Your task to perform on an android device: toggle airplane mode Image 0: 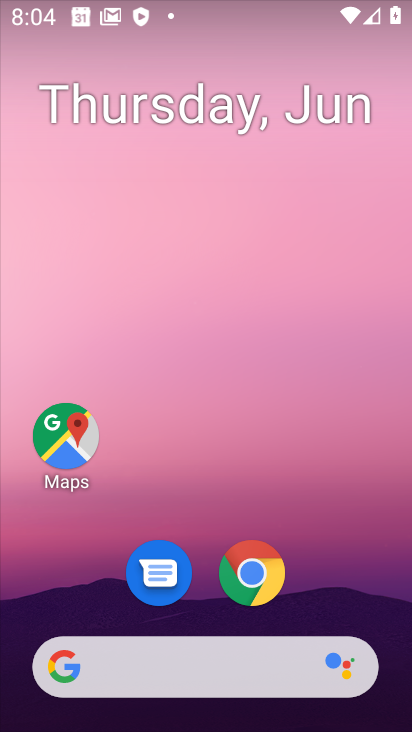
Step 0: drag from (349, 537) to (251, 271)
Your task to perform on an android device: toggle airplane mode Image 1: 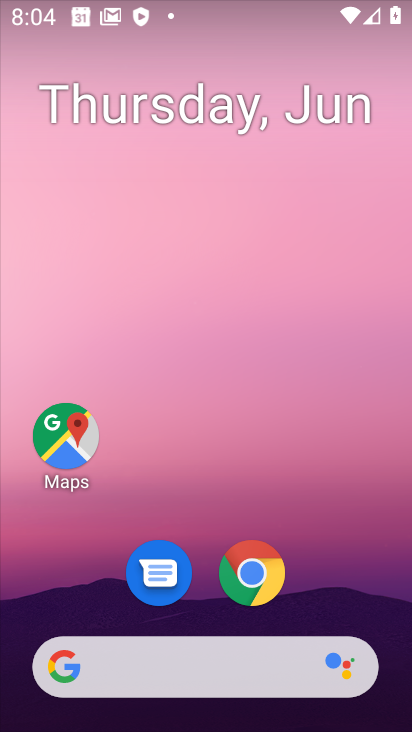
Step 1: drag from (312, 621) to (291, 265)
Your task to perform on an android device: toggle airplane mode Image 2: 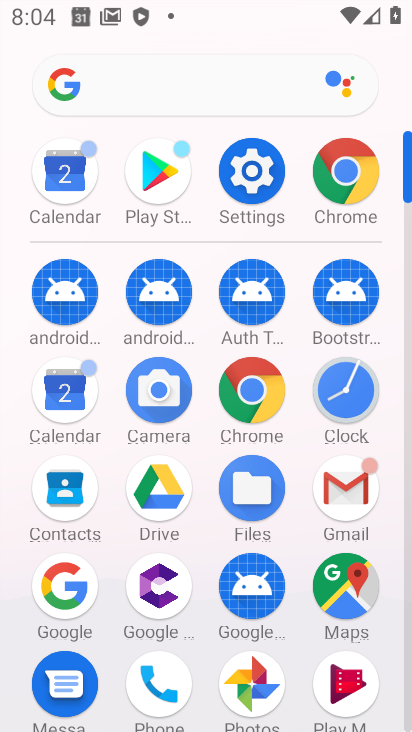
Step 2: click (238, 173)
Your task to perform on an android device: toggle airplane mode Image 3: 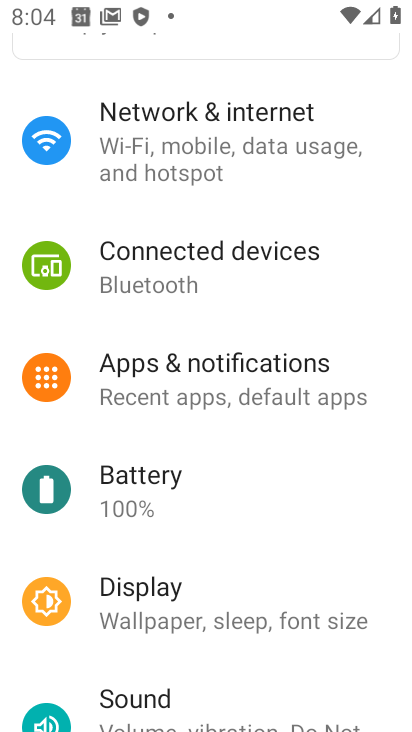
Step 3: drag from (230, 174) to (265, 558)
Your task to perform on an android device: toggle airplane mode Image 4: 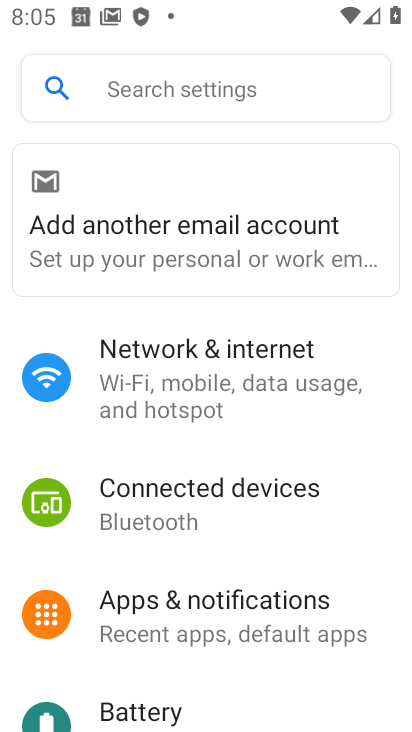
Step 4: click (253, 379)
Your task to perform on an android device: toggle airplane mode Image 5: 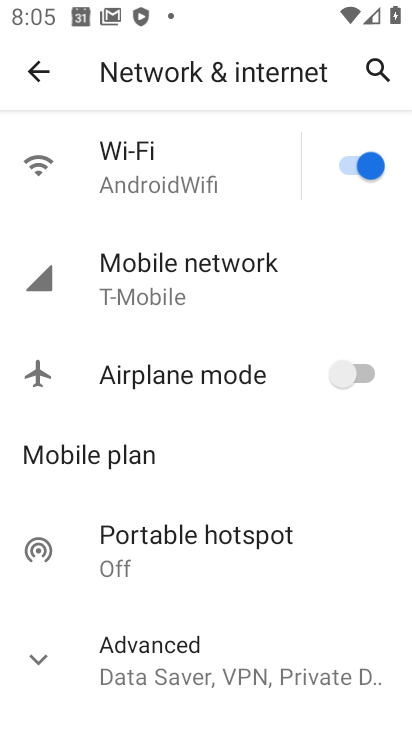
Step 5: click (374, 360)
Your task to perform on an android device: toggle airplane mode Image 6: 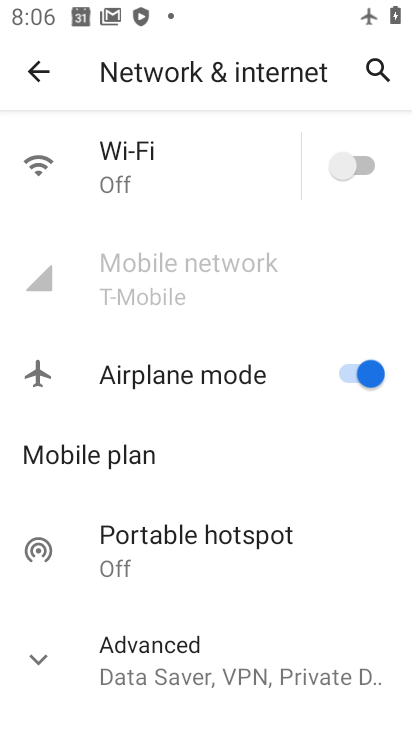
Step 6: task complete